Your task to perform on an android device: empty trash in google photos Image 0: 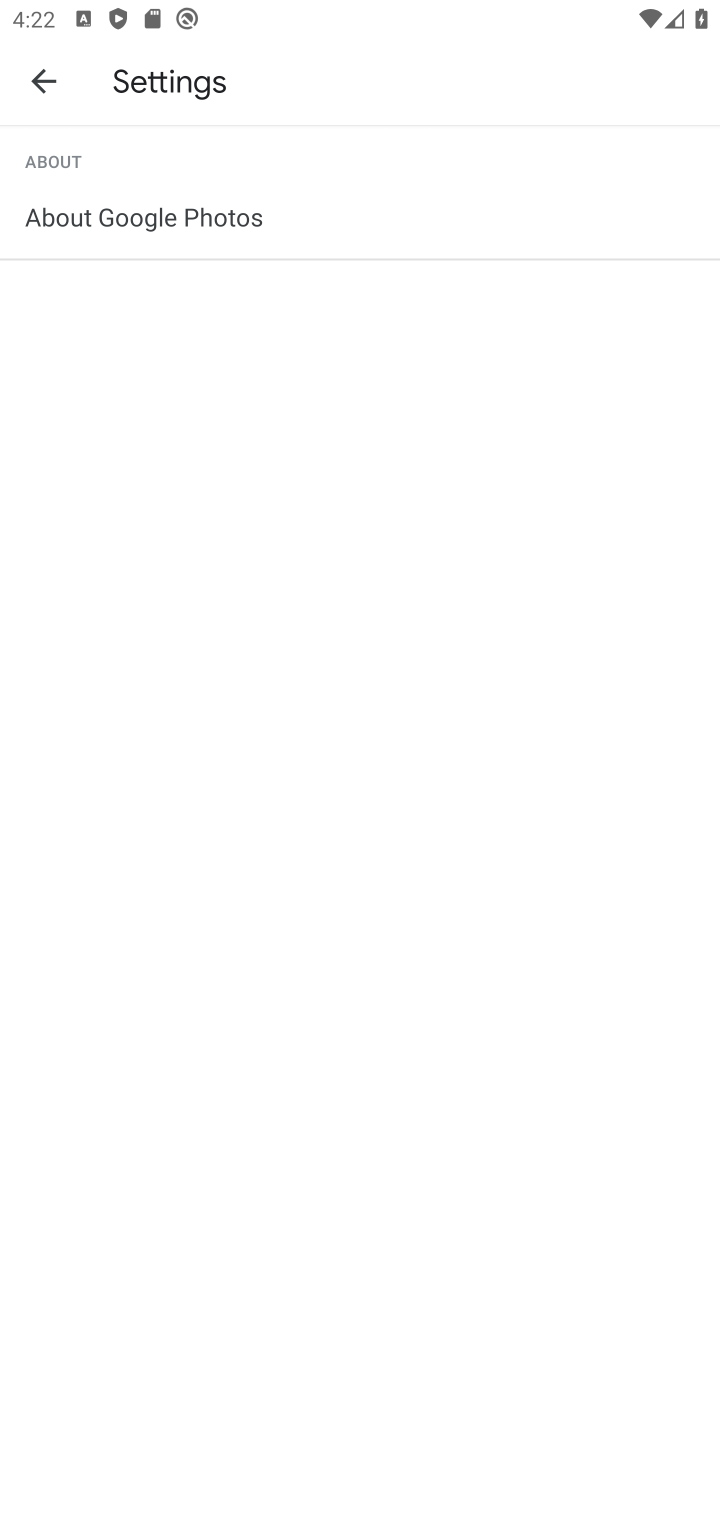
Step 0: press home button
Your task to perform on an android device: empty trash in google photos Image 1: 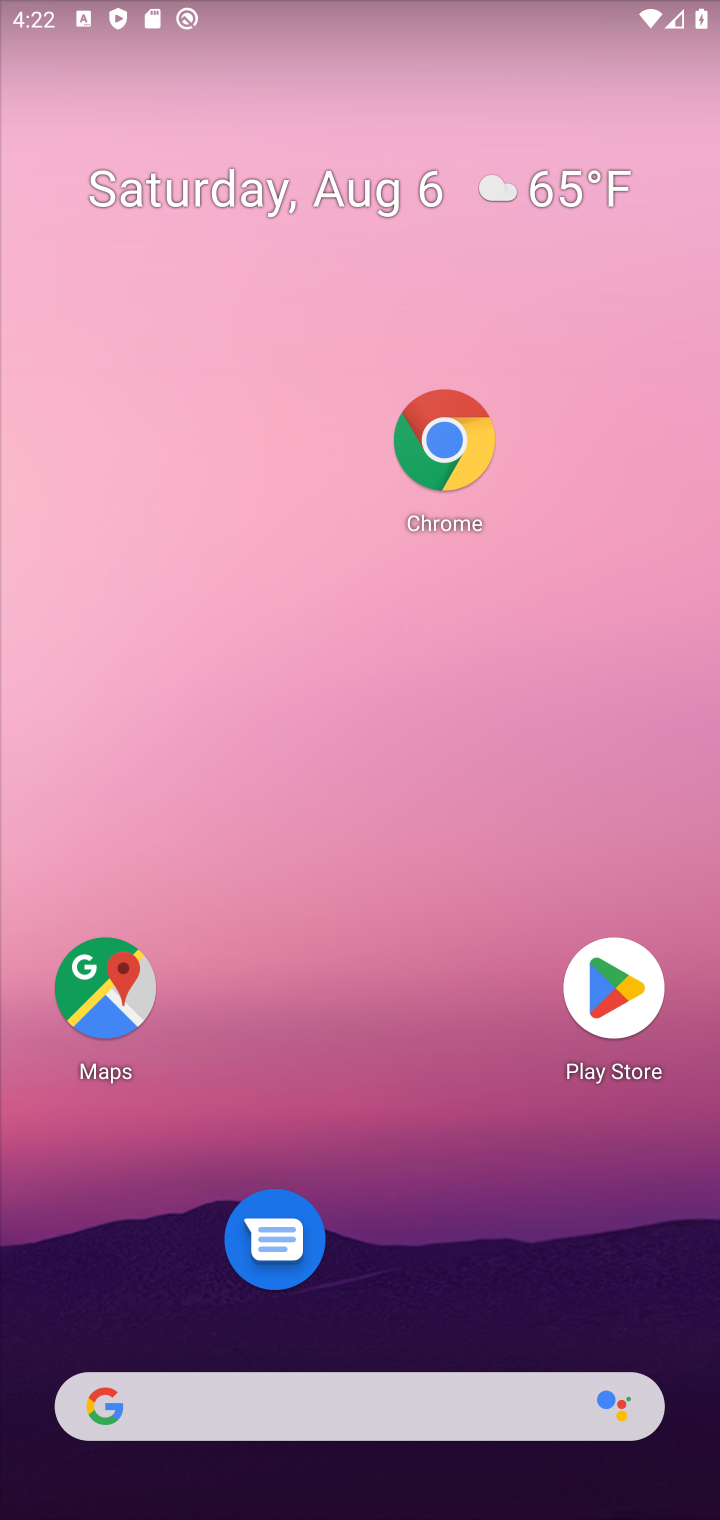
Step 1: drag from (429, 1033) to (396, 85)
Your task to perform on an android device: empty trash in google photos Image 2: 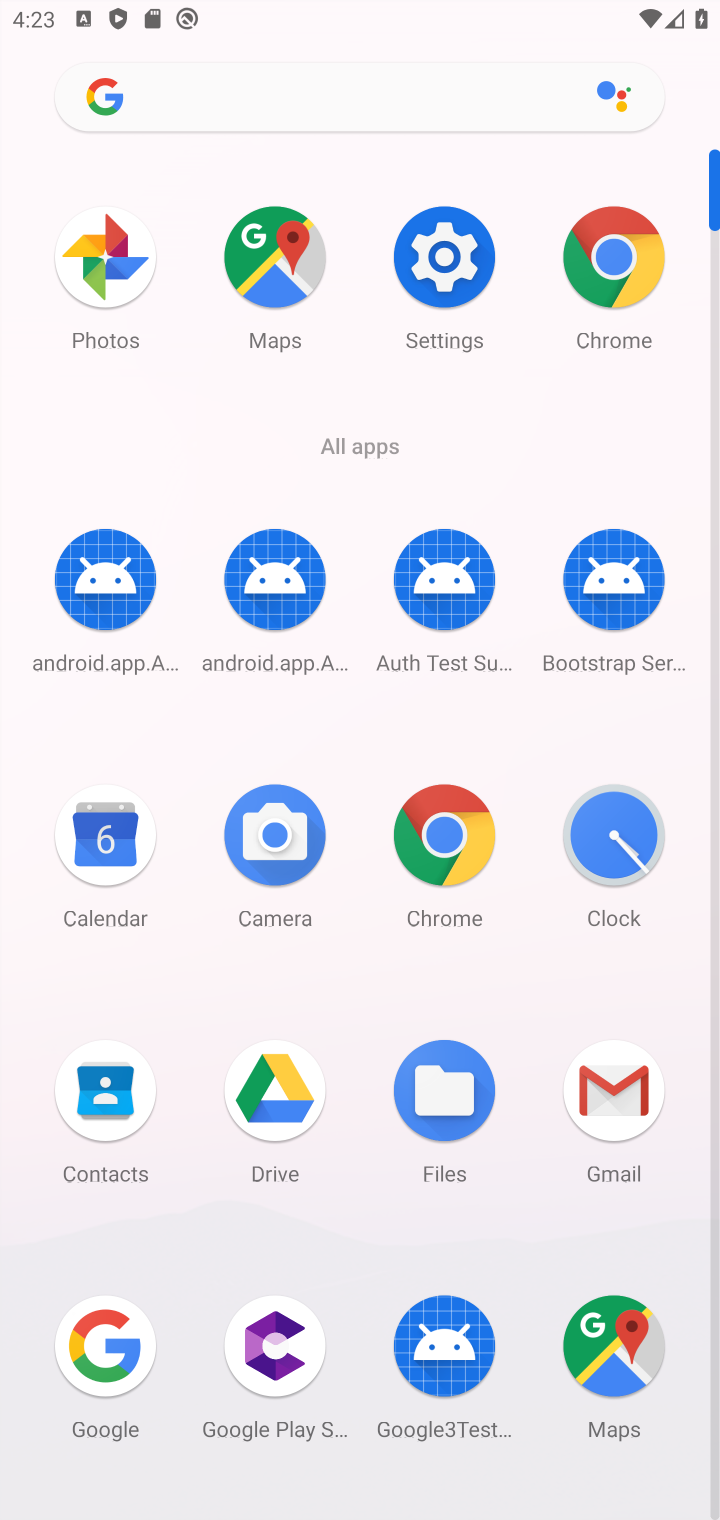
Step 2: drag from (498, 1176) to (512, 557)
Your task to perform on an android device: empty trash in google photos Image 3: 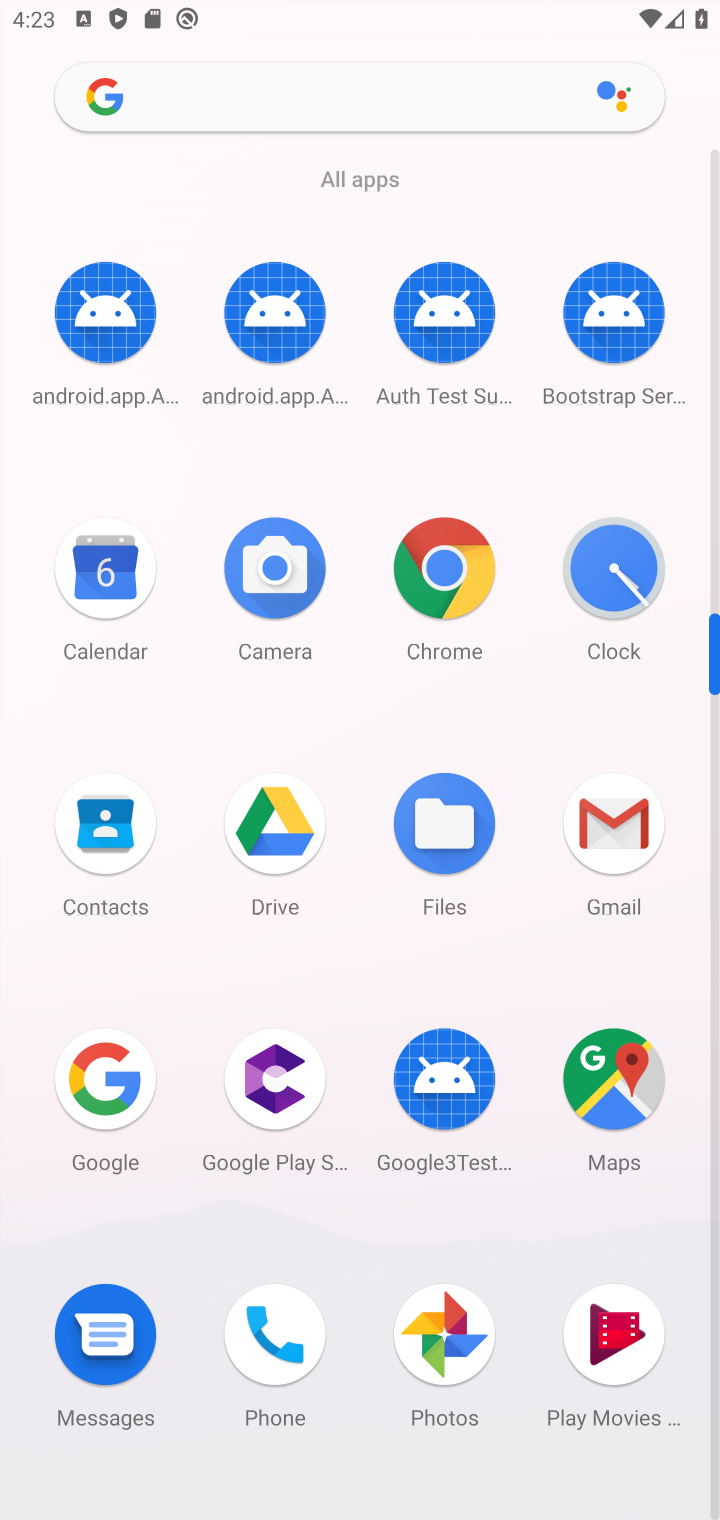
Step 3: click (454, 1303)
Your task to perform on an android device: empty trash in google photos Image 4: 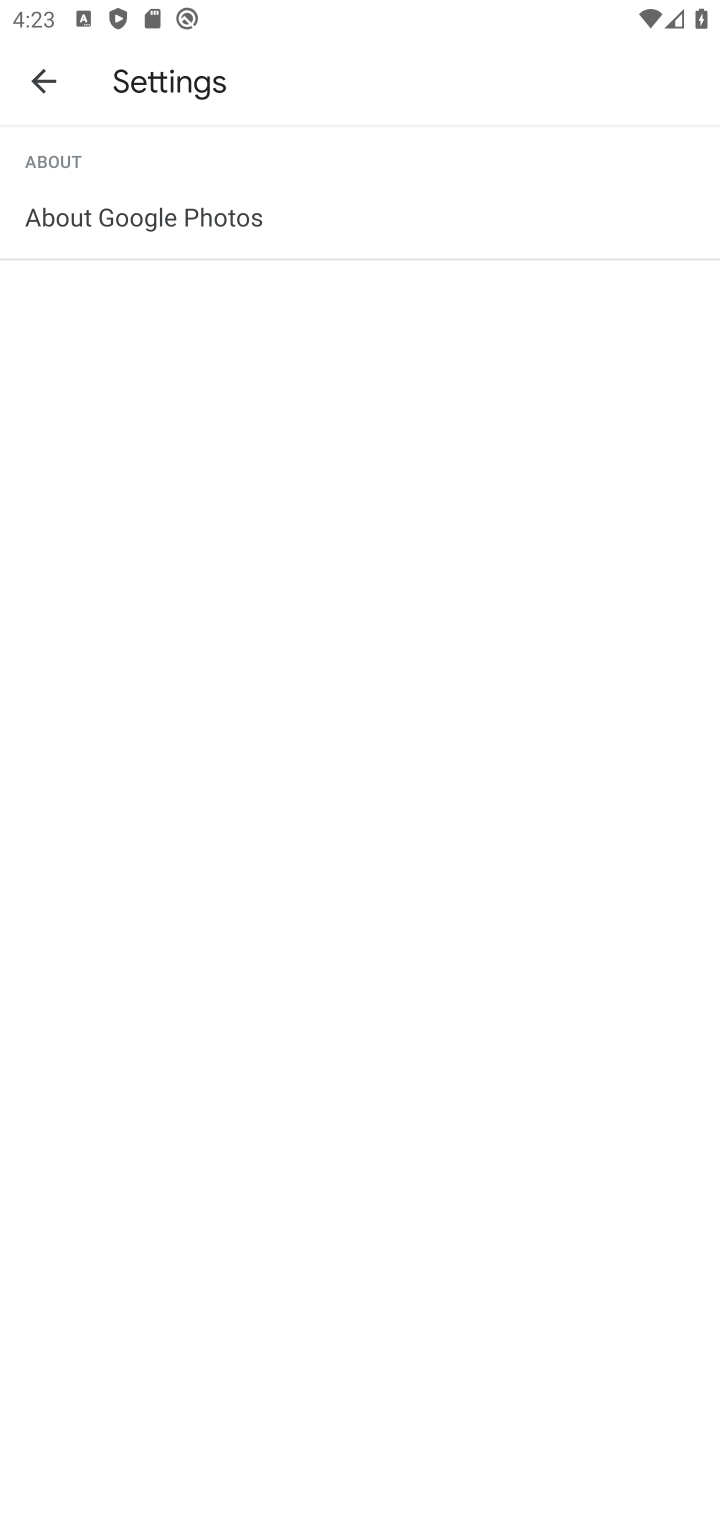
Step 4: task complete